Your task to perform on an android device: turn pop-ups off in chrome Image 0: 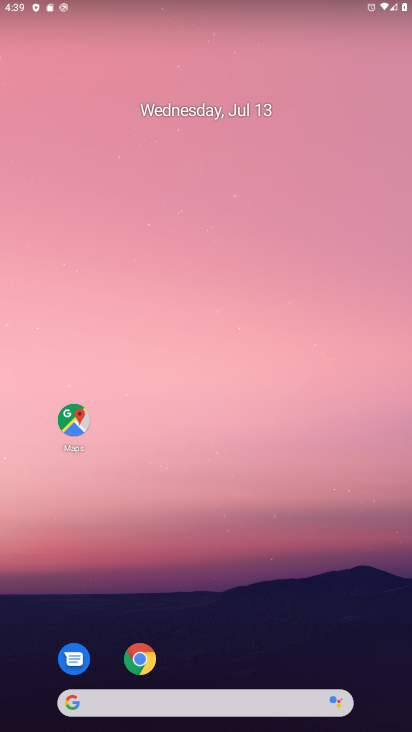
Step 0: drag from (328, 598) to (331, 42)
Your task to perform on an android device: turn pop-ups off in chrome Image 1: 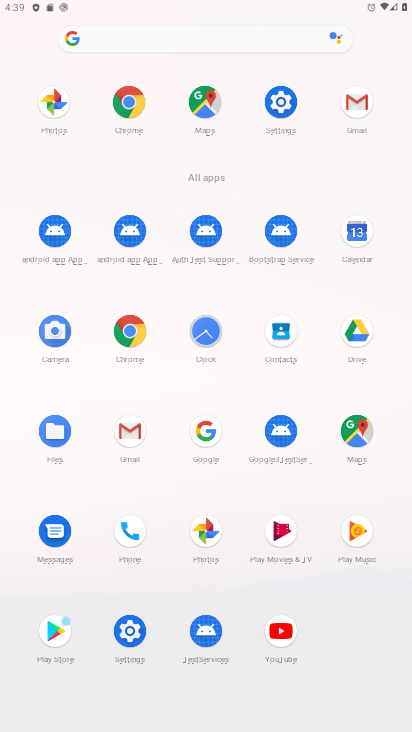
Step 1: click (122, 105)
Your task to perform on an android device: turn pop-ups off in chrome Image 2: 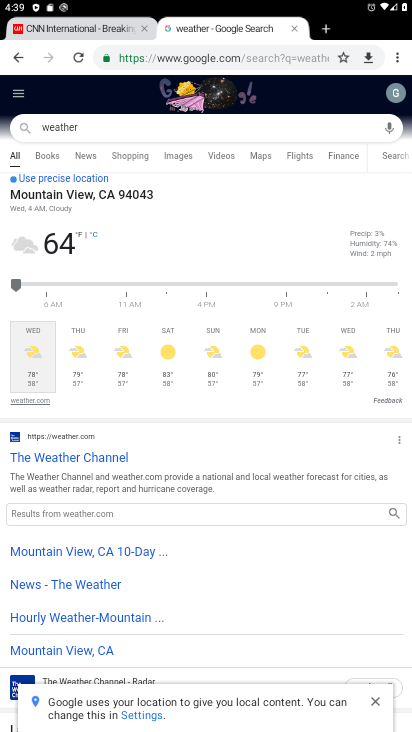
Step 2: drag from (394, 52) to (289, 356)
Your task to perform on an android device: turn pop-ups off in chrome Image 3: 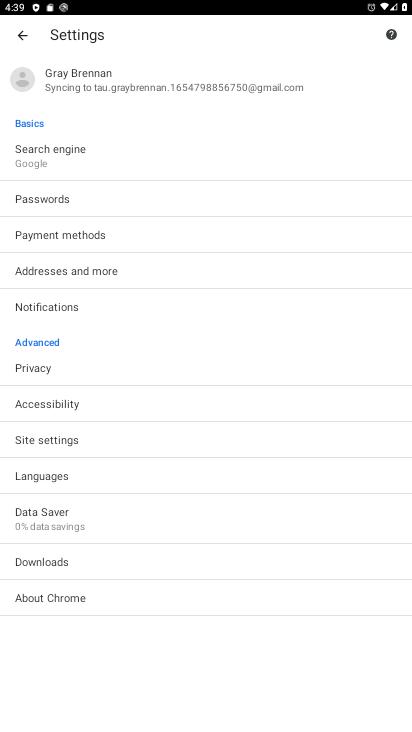
Step 3: click (56, 437)
Your task to perform on an android device: turn pop-ups off in chrome Image 4: 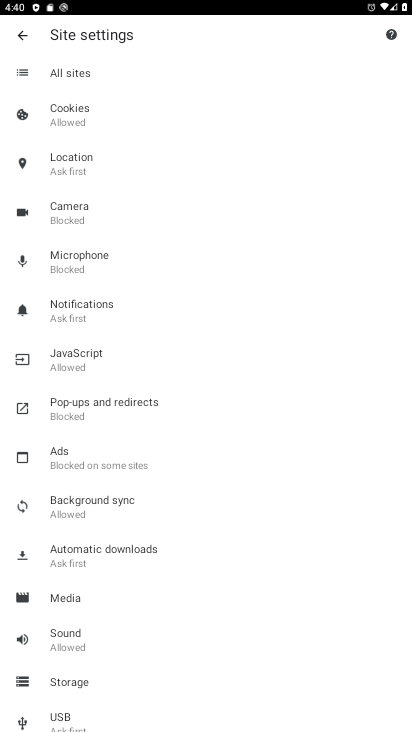
Step 4: click (101, 405)
Your task to perform on an android device: turn pop-ups off in chrome Image 5: 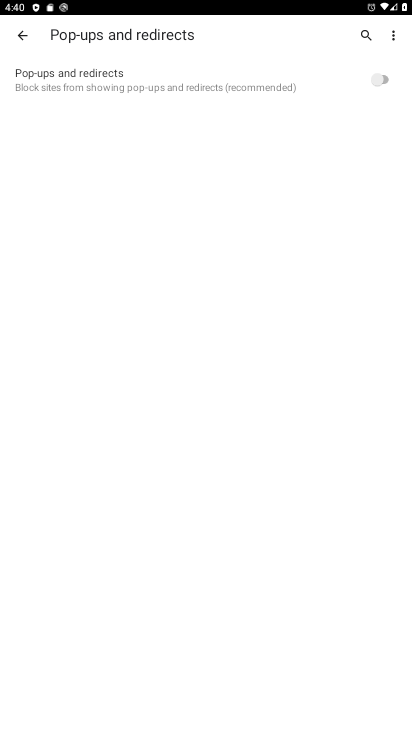
Step 5: task complete